Your task to perform on an android device: read, delete, or share a saved page in the chrome app Image 0: 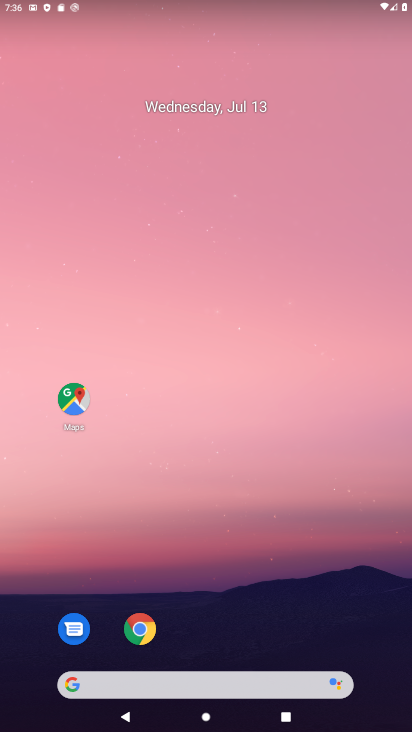
Step 0: click (148, 626)
Your task to perform on an android device: read, delete, or share a saved page in the chrome app Image 1: 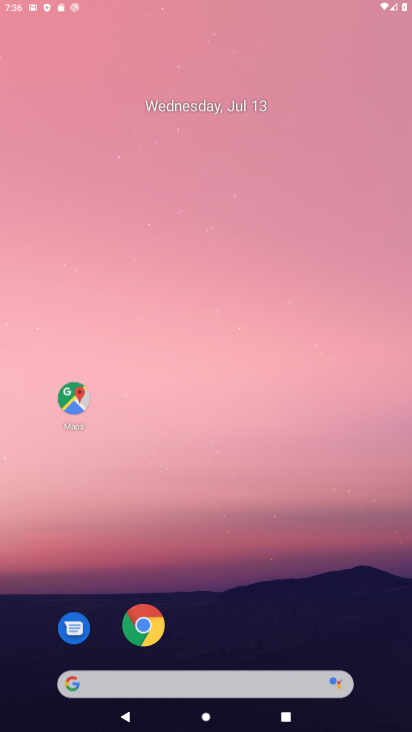
Step 1: click (141, 620)
Your task to perform on an android device: read, delete, or share a saved page in the chrome app Image 2: 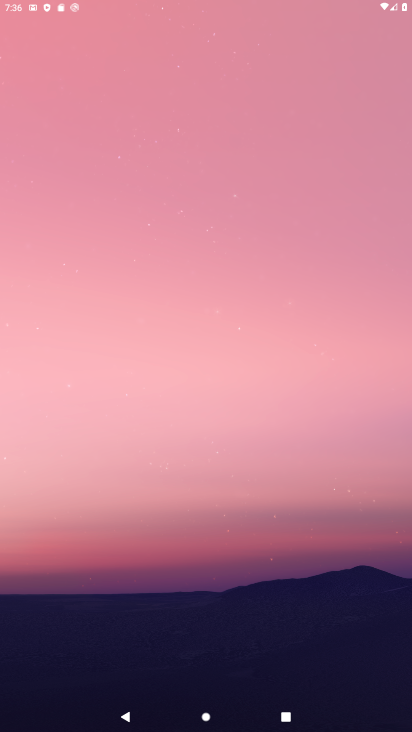
Step 2: click (141, 620)
Your task to perform on an android device: read, delete, or share a saved page in the chrome app Image 3: 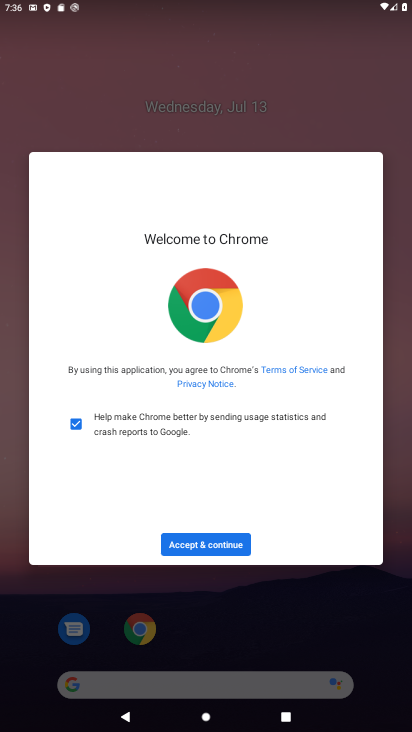
Step 3: click (195, 552)
Your task to perform on an android device: read, delete, or share a saved page in the chrome app Image 4: 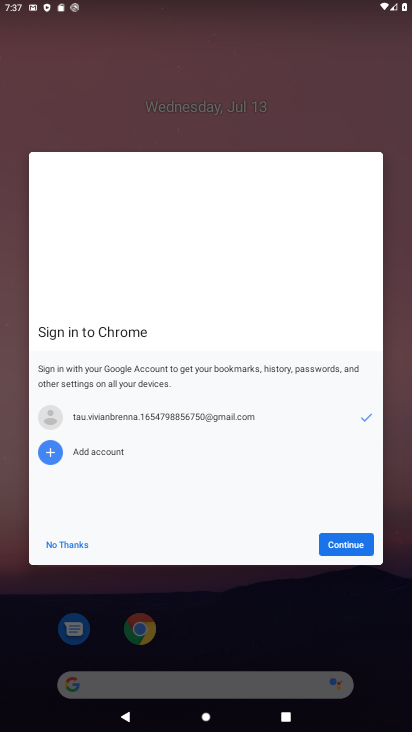
Step 4: click (357, 541)
Your task to perform on an android device: read, delete, or share a saved page in the chrome app Image 5: 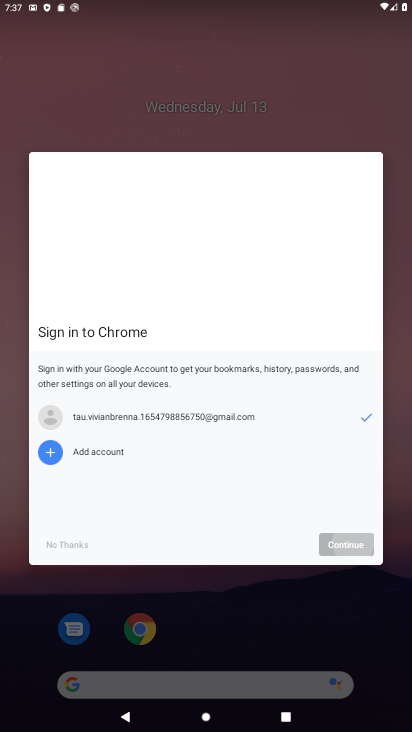
Step 5: click (345, 543)
Your task to perform on an android device: read, delete, or share a saved page in the chrome app Image 6: 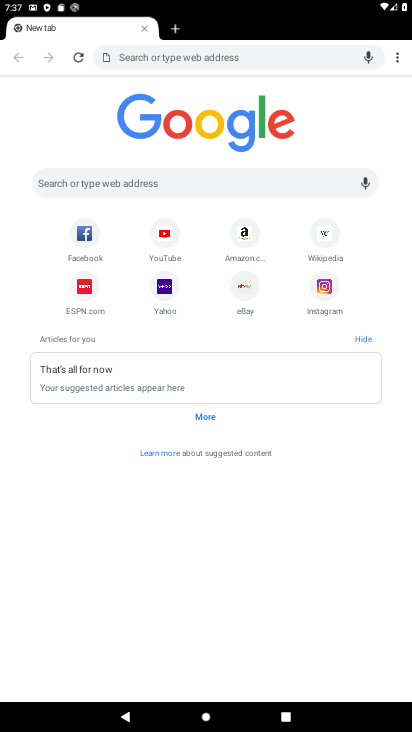
Step 6: click (395, 54)
Your task to perform on an android device: read, delete, or share a saved page in the chrome app Image 7: 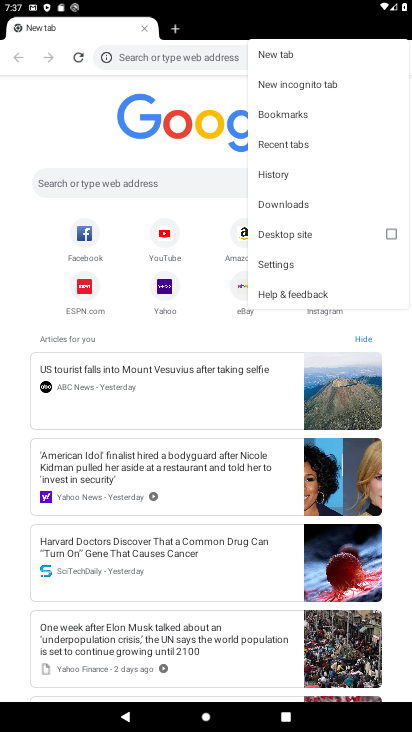
Step 7: click (287, 257)
Your task to perform on an android device: read, delete, or share a saved page in the chrome app Image 8: 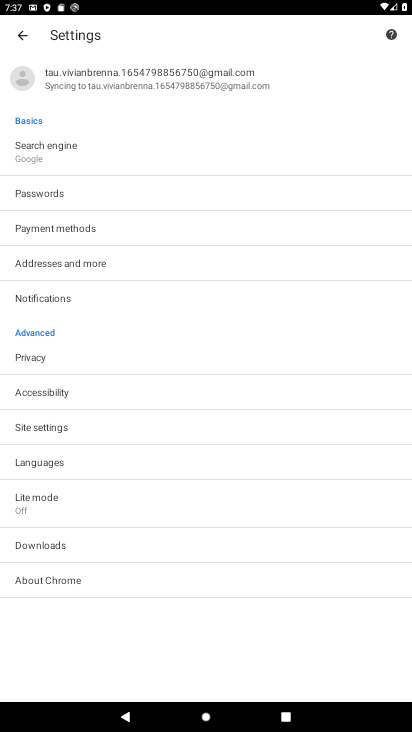
Step 8: task complete